Your task to perform on an android device: Open Chrome and go to the settings page Image 0: 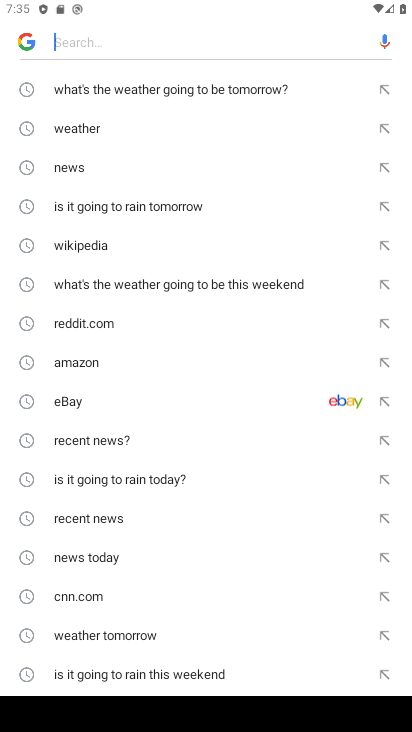
Step 0: press home button
Your task to perform on an android device: Open Chrome and go to the settings page Image 1: 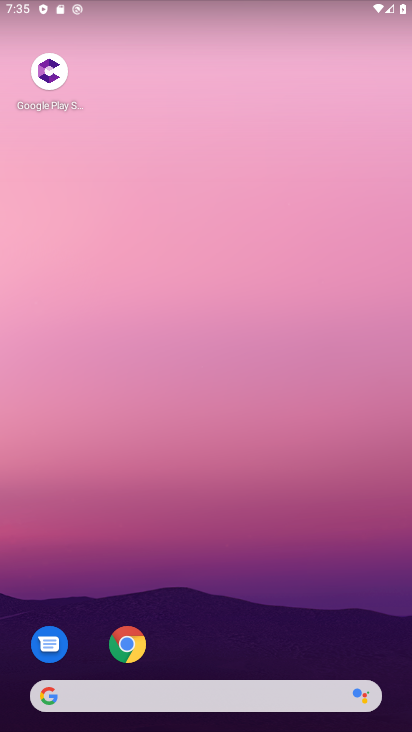
Step 1: drag from (178, 652) to (179, 317)
Your task to perform on an android device: Open Chrome and go to the settings page Image 2: 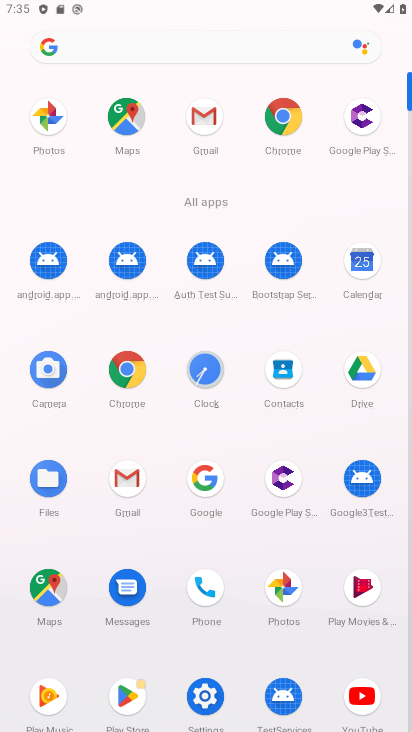
Step 2: click (128, 354)
Your task to perform on an android device: Open Chrome and go to the settings page Image 3: 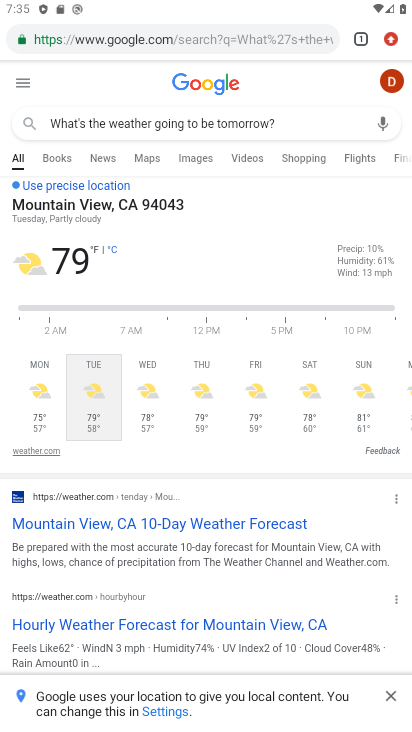
Step 3: click (390, 33)
Your task to perform on an android device: Open Chrome and go to the settings page Image 4: 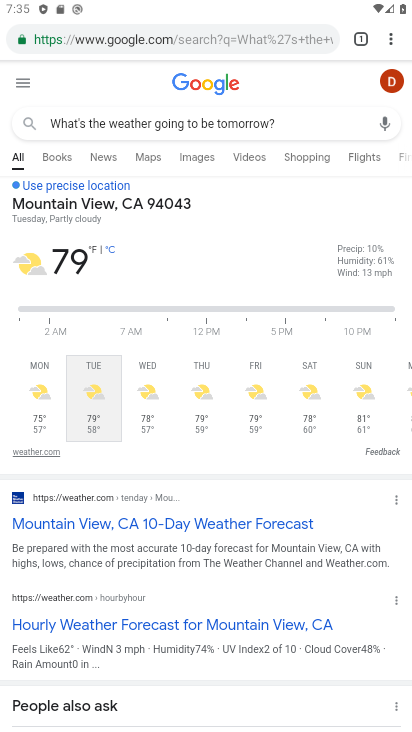
Step 4: click (387, 38)
Your task to perform on an android device: Open Chrome and go to the settings page Image 5: 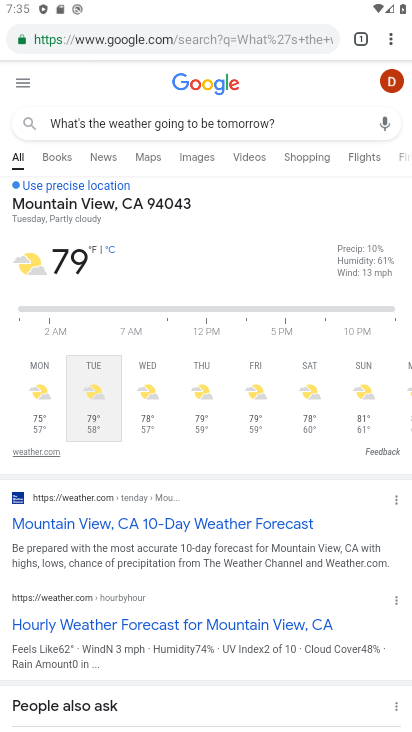
Step 5: click (387, 38)
Your task to perform on an android device: Open Chrome and go to the settings page Image 6: 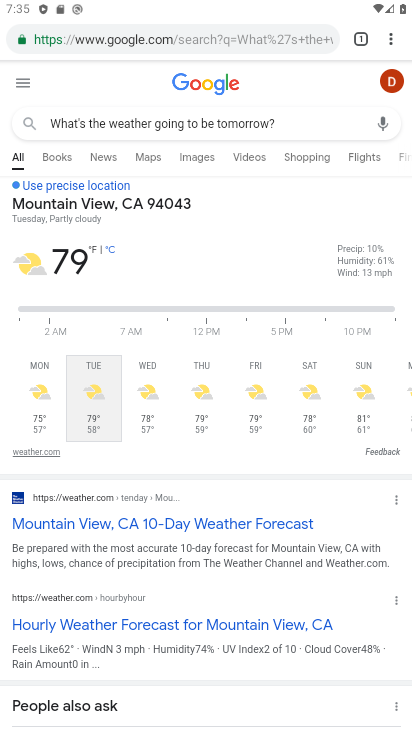
Step 6: click (399, 30)
Your task to perform on an android device: Open Chrome and go to the settings page Image 7: 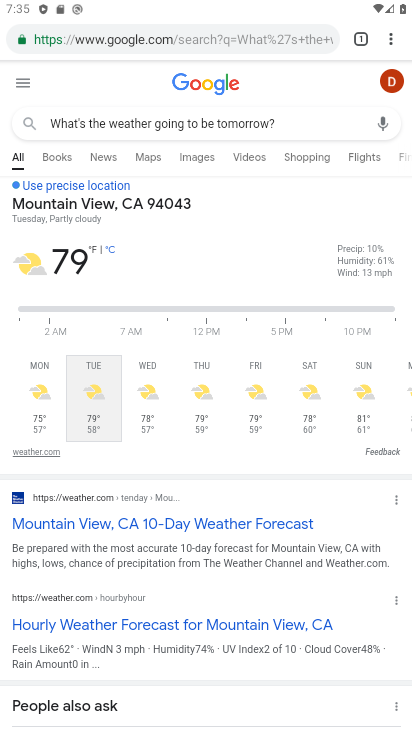
Step 7: click (393, 41)
Your task to perform on an android device: Open Chrome and go to the settings page Image 8: 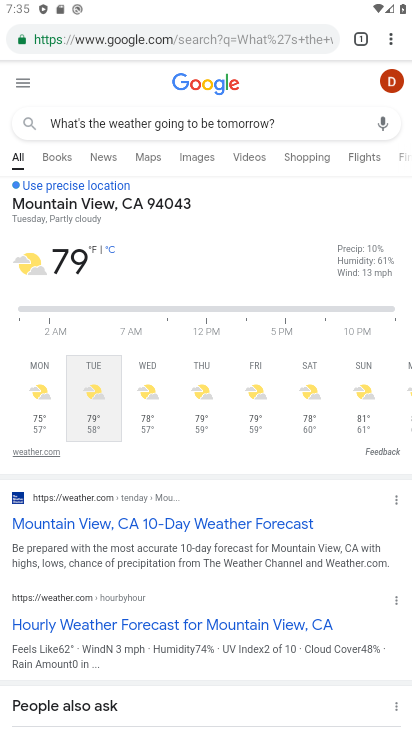
Step 8: click (393, 41)
Your task to perform on an android device: Open Chrome and go to the settings page Image 9: 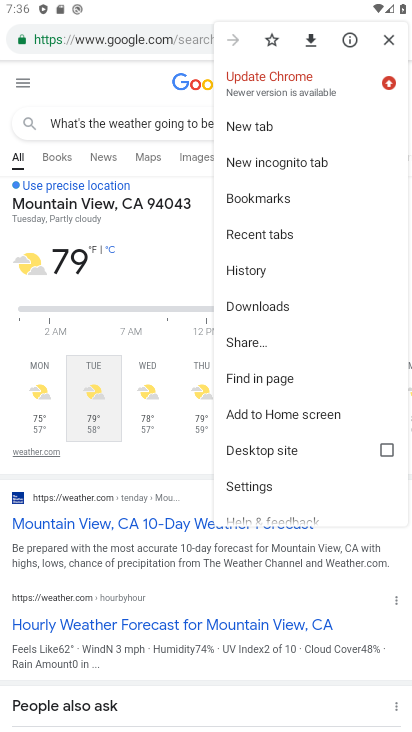
Step 9: click (231, 489)
Your task to perform on an android device: Open Chrome and go to the settings page Image 10: 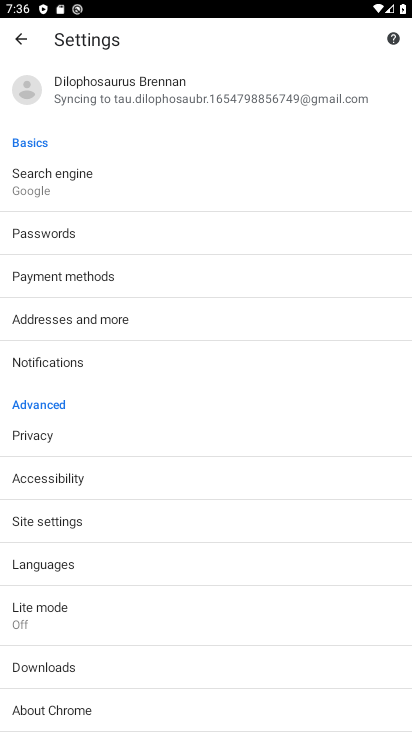
Step 10: task complete